Your task to perform on an android device: open chrome privacy settings Image 0: 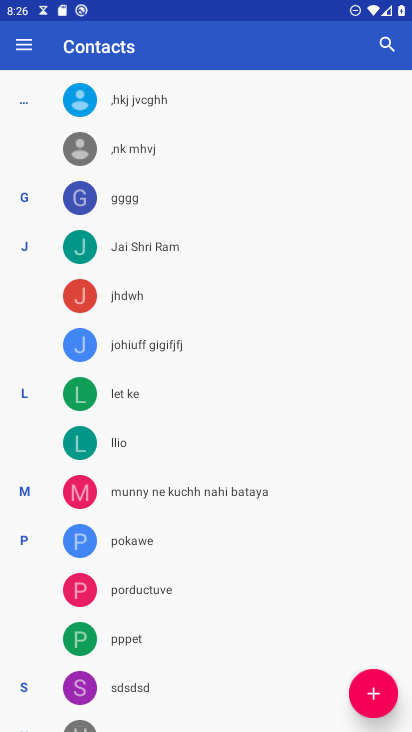
Step 0: press home button
Your task to perform on an android device: open chrome privacy settings Image 1: 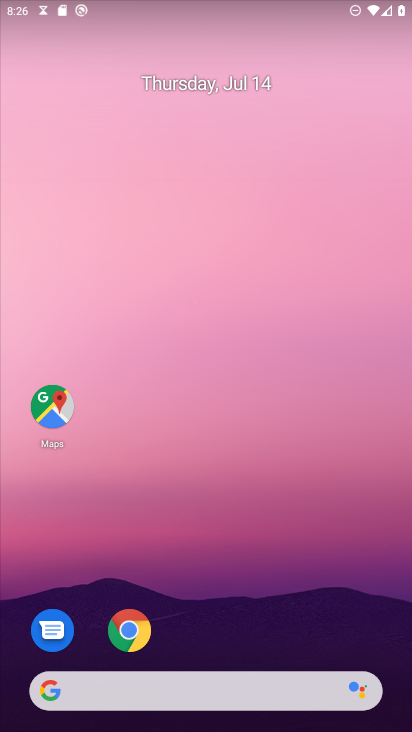
Step 1: click (134, 618)
Your task to perform on an android device: open chrome privacy settings Image 2: 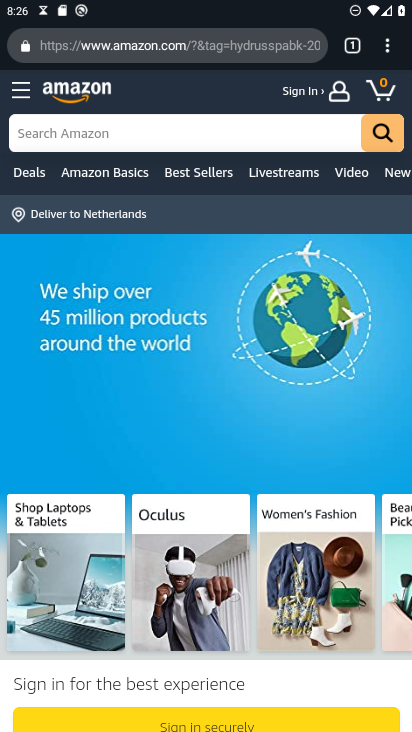
Step 2: click (386, 52)
Your task to perform on an android device: open chrome privacy settings Image 3: 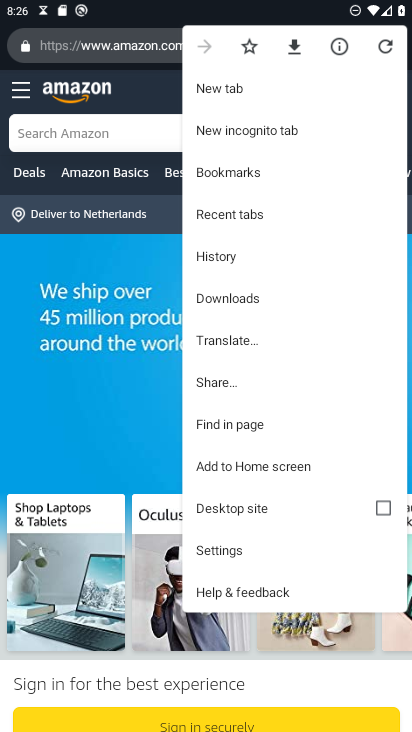
Step 3: click (228, 557)
Your task to perform on an android device: open chrome privacy settings Image 4: 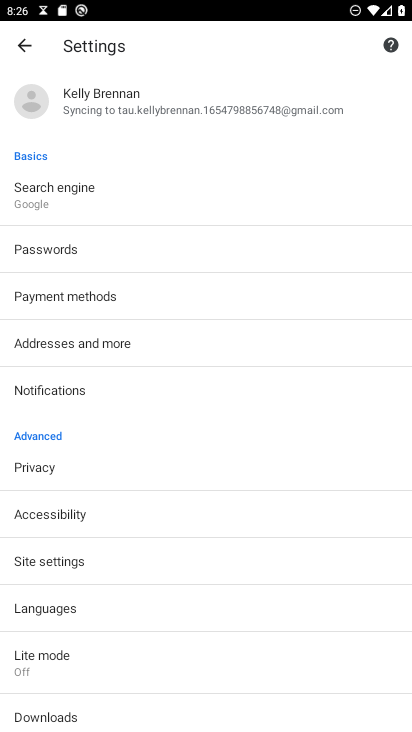
Step 4: click (41, 468)
Your task to perform on an android device: open chrome privacy settings Image 5: 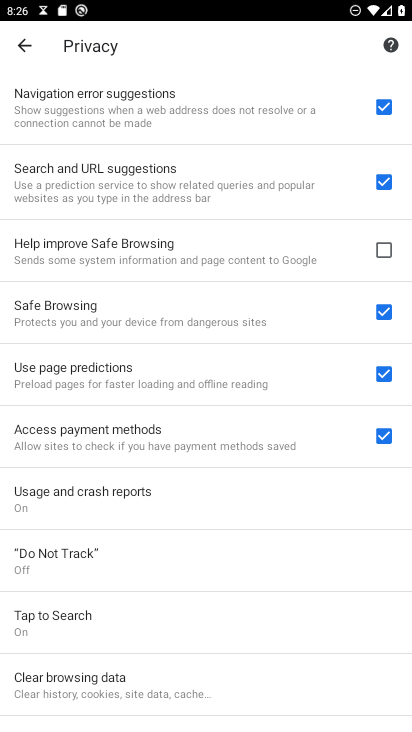
Step 5: task complete